Your task to perform on an android device: Go to ESPN.com Image 0: 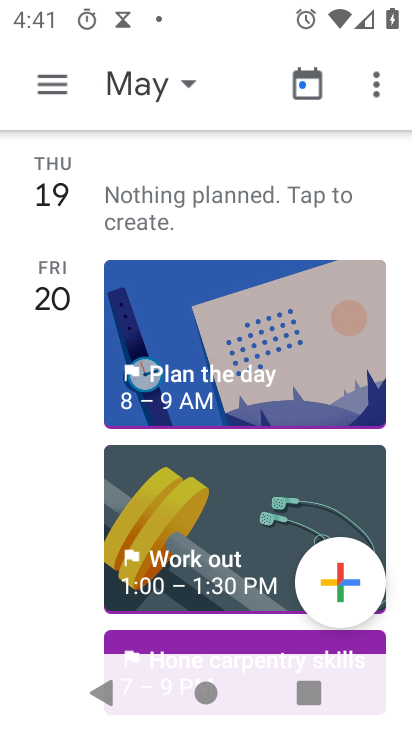
Step 0: press home button
Your task to perform on an android device: Go to ESPN.com Image 1: 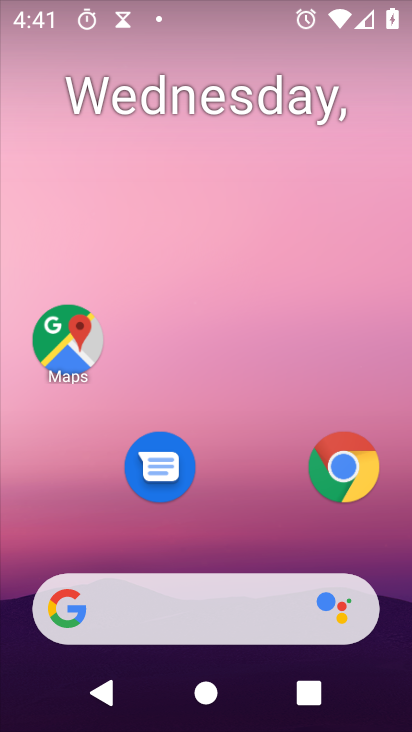
Step 1: drag from (393, 526) to (352, 240)
Your task to perform on an android device: Go to ESPN.com Image 2: 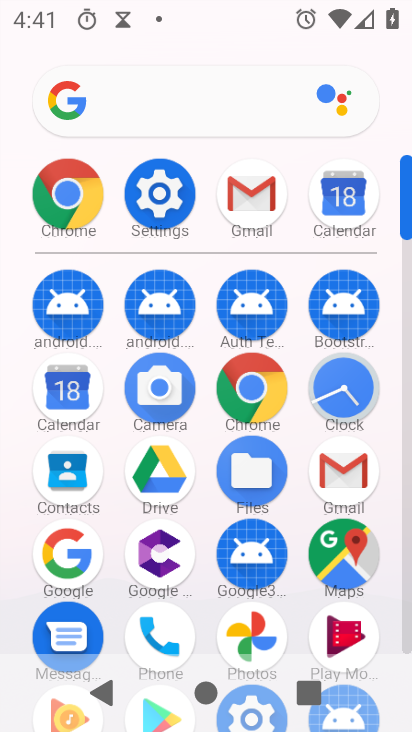
Step 2: click (74, 201)
Your task to perform on an android device: Go to ESPN.com Image 3: 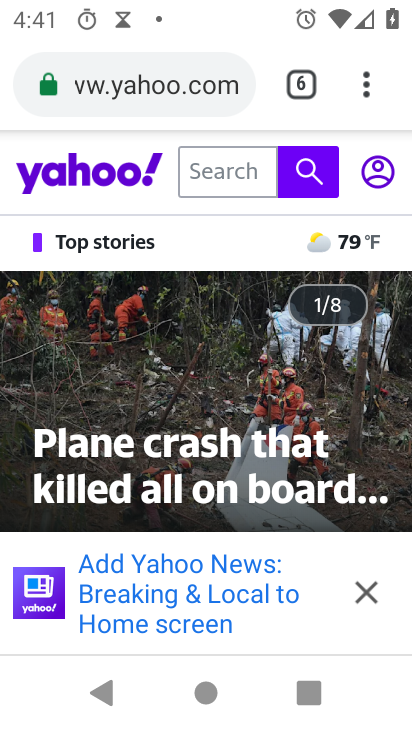
Step 3: click (187, 91)
Your task to perform on an android device: Go to ESPN.com Image 4: 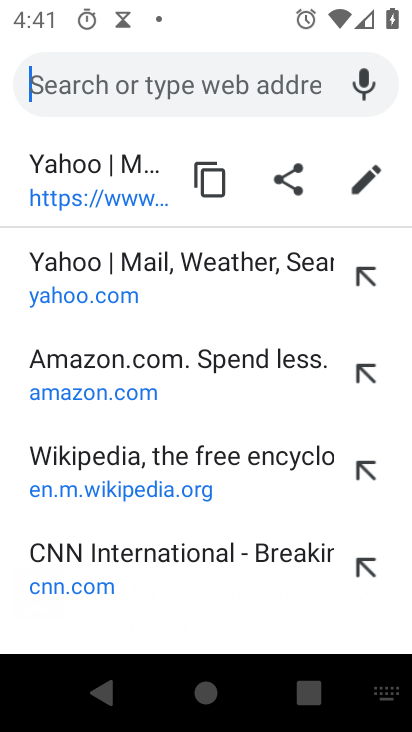
Step 4: type "espn.com"
Your task to perform on an android device: Go to ESPN.com Image 5: 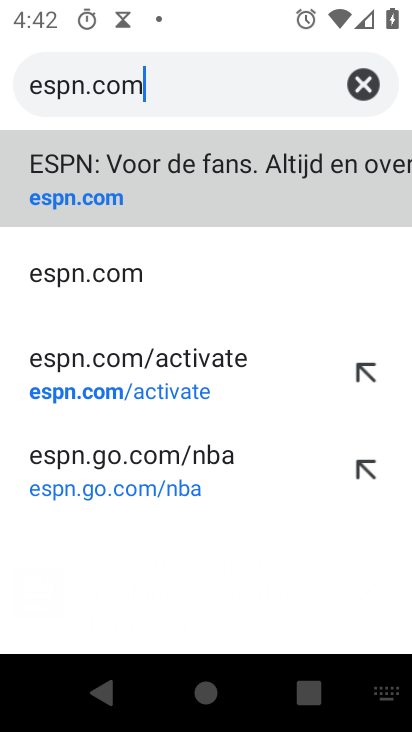
Step 5: click (94, 208)
Your task to perform on an android device: Go to ESPN.com Image 6: 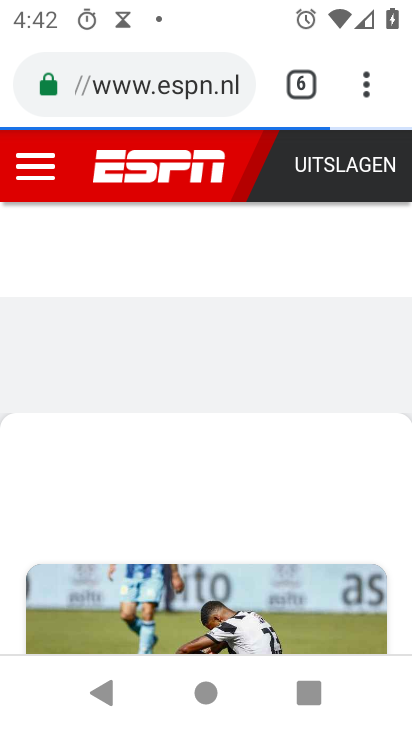
Step 6: task complete